Your task to perform on an android device: turn off picture-in-picture Image 0: 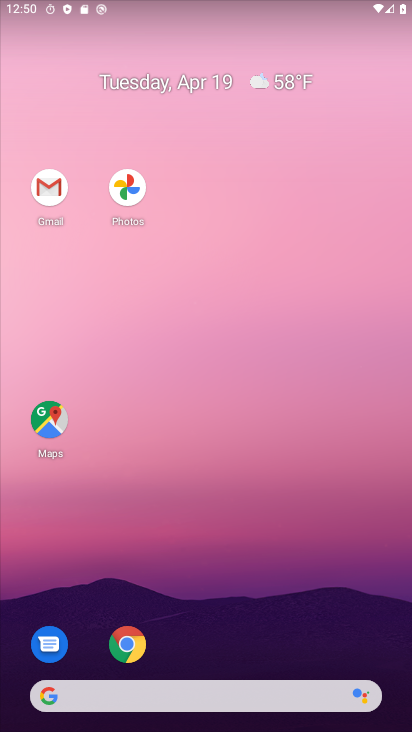
Step 0: click (132, 642)
Your task to perform on an android device: turn off picture-in-picture Image 1: 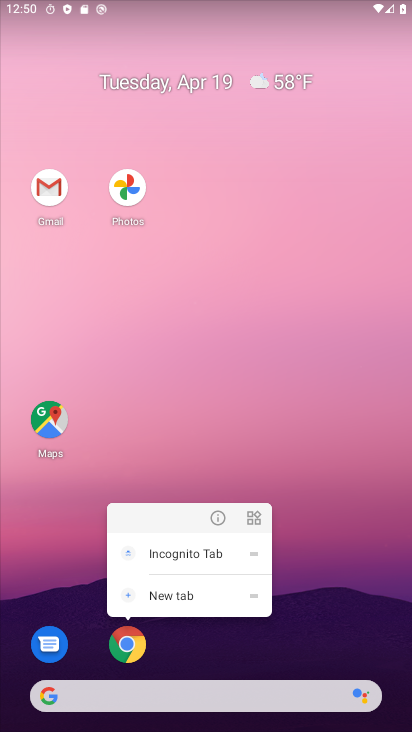
Step 1: click (218, 520)
Your task to perform on an android device: turn off picture-in-picture Image 2: 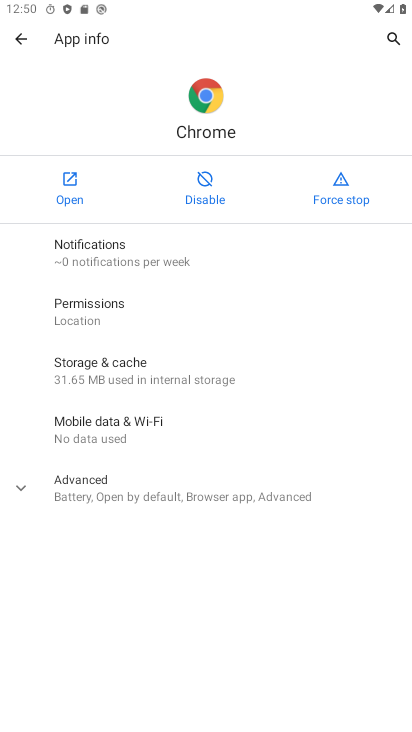
Step 2: click (143, 492)
Your task to perform on an android device: turn off picture-in-picture Image 3: 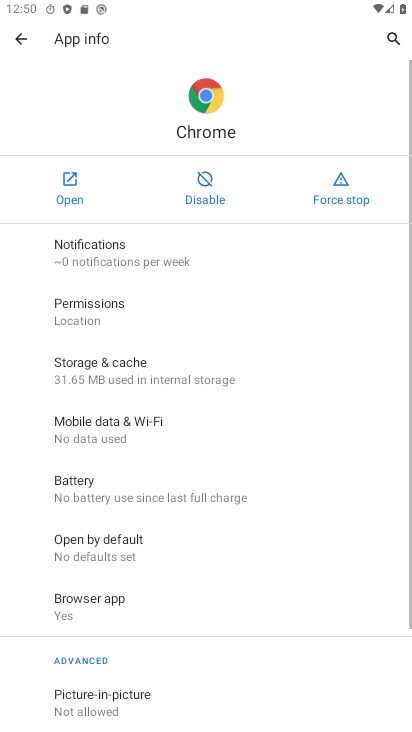
Step 3: drag from (175, 566) to (234, 194)
Your task to perform on an android device: turn off picture-in-picture Image 4: 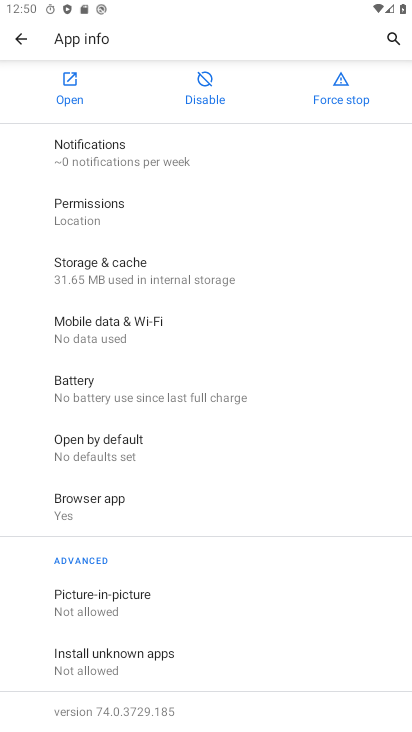
Step 4: click (122, 604)
Your task to perform on an android device: turn off picture-in-picture Image 5: 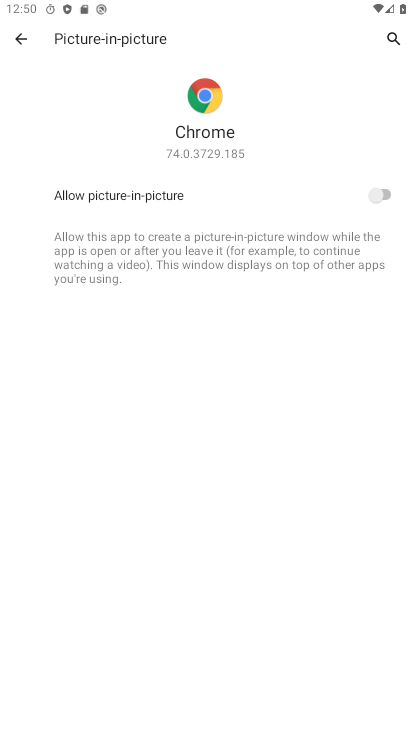
Step 5: task complete